Your task to perform on an android device: Check the weather Image 0: 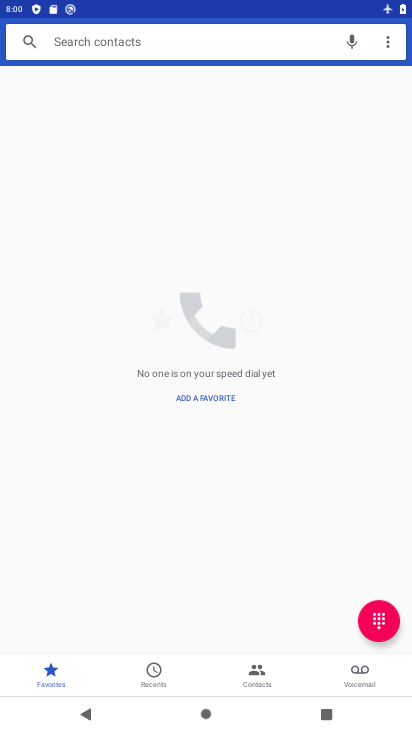
Step 0: press home button
Your task to perform on an android device: Check the weather Image 1: 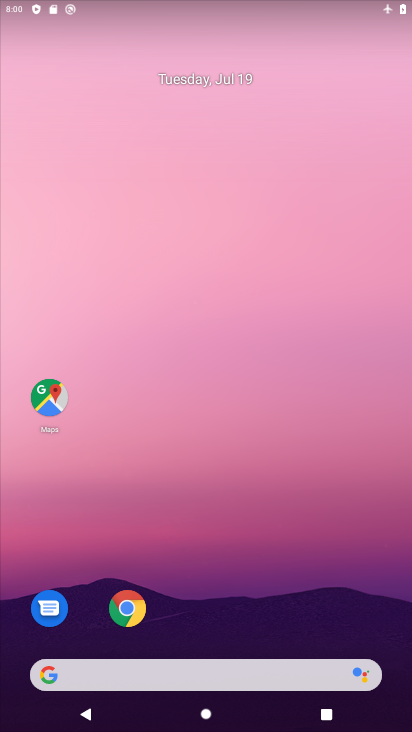
Step 1: click (130, 621)
Your task to perform on an android device: Check the weather Image 2: 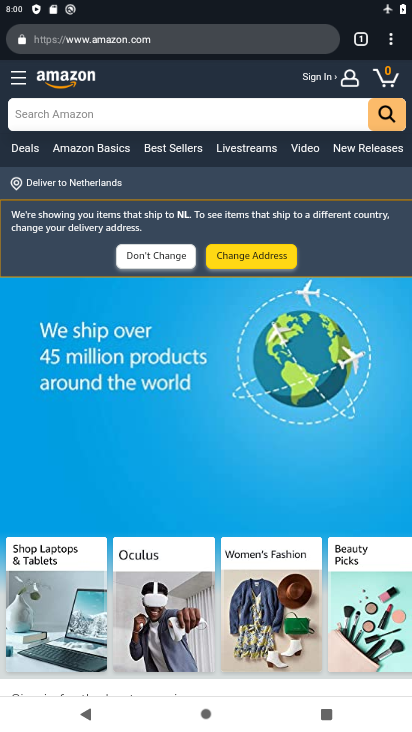
Step 2: click (155, 44)
Your task to perform on an android device: Check the weather Image 3: 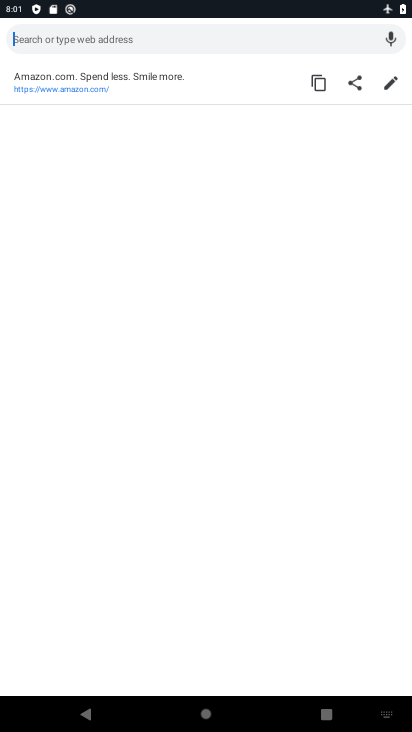
Step 3: type "weather"
Your task to perform on an android device: Check the weather Image 4: 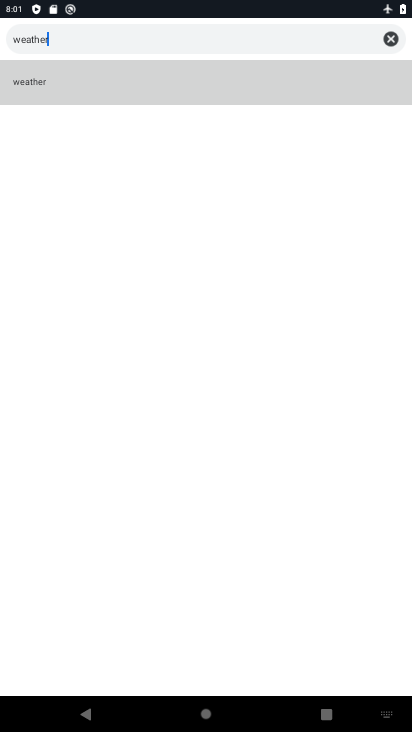
Step 4: click (147, 94)
Your task to perform on an android device: Check the weather Image 5: 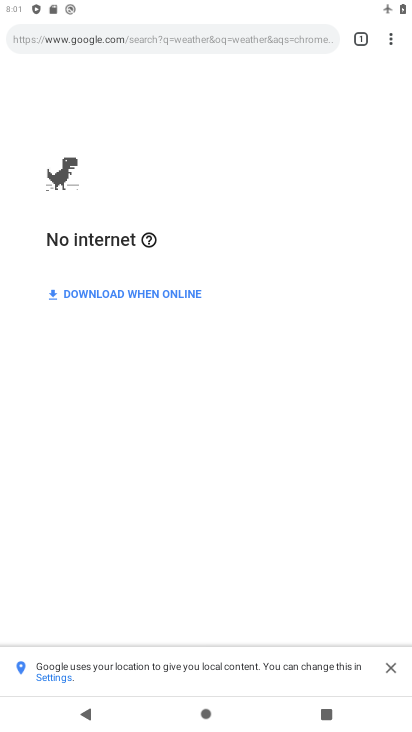
Step 5: task complete